Your task to perform on an android device: see tabs open on other devices in the chrome app Image 0: 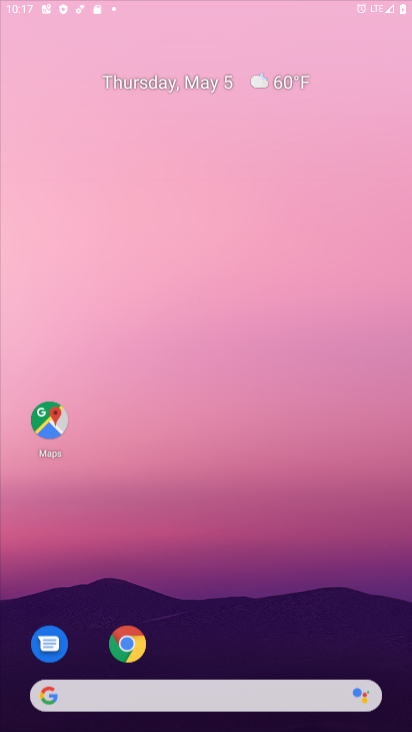
Step 0: click (132, 631)
Your task to perform on an android device: see tabs open on other devices in the chrome app Image 1: 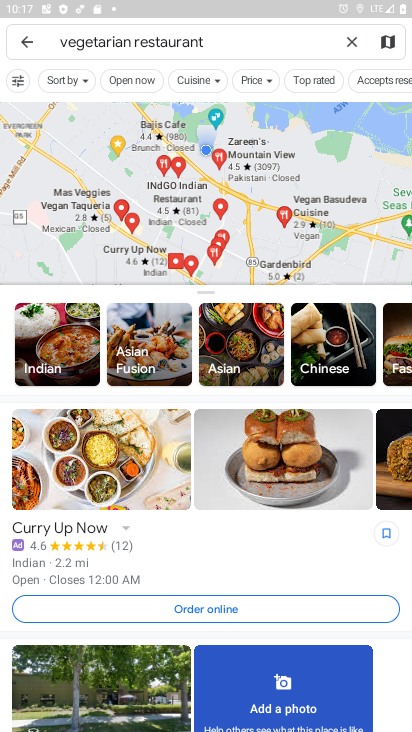
Step 1: press home button
Your task to perform on an android device: see tabs open on other devices in the chrome app Image 2: 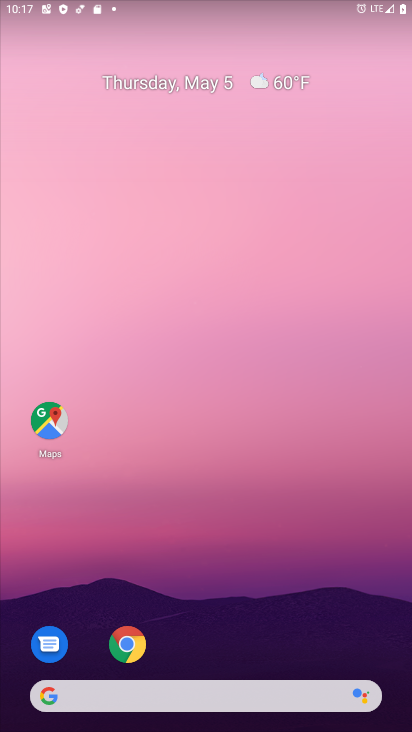
Step 2: click (132, 654)
Your task to perform on an android device: see tabs open on other devices in the chrome app Image 3: 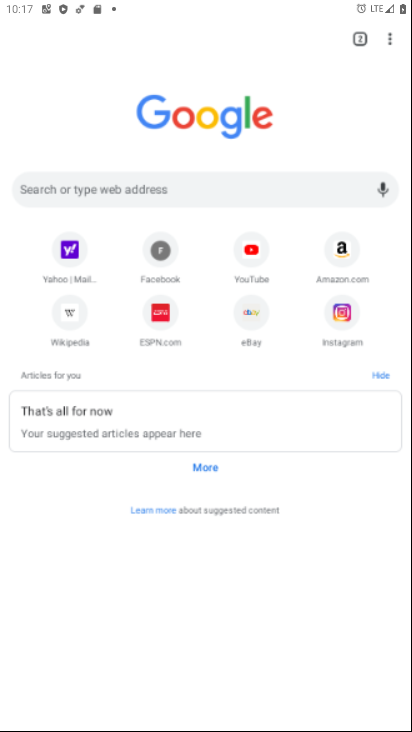
Step 3: click (359, 48)
Your task to perform on an android device: see tabs open on other devices in the chrome app Image 4: 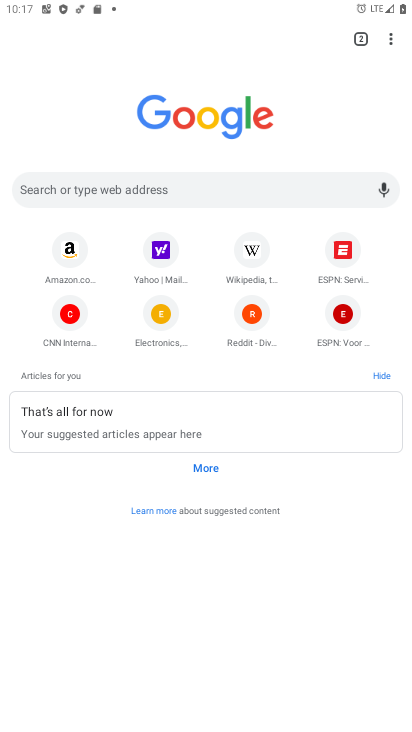
Step 4: click (362, 37)
Your task to perform on an android device: see tabs open on other devices in the chrome app Image 5: 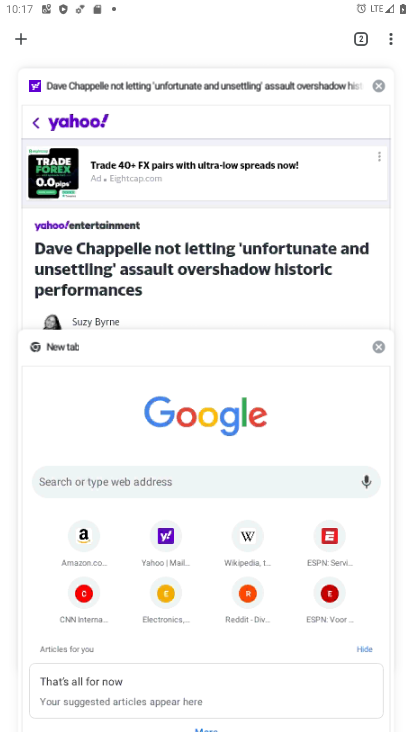
Step 5: task complete